Your task to perform on an android device: see sites visited before in the chrome app Image 0: 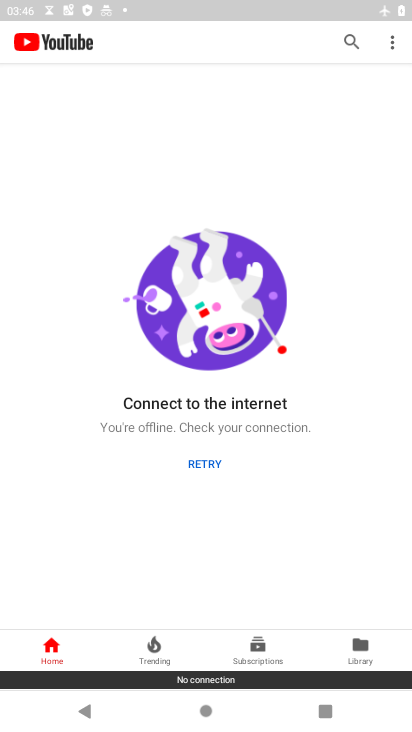
Step 0: press back button
Your task to perform on an android device: see sites visited before in the chrome app Image 1: 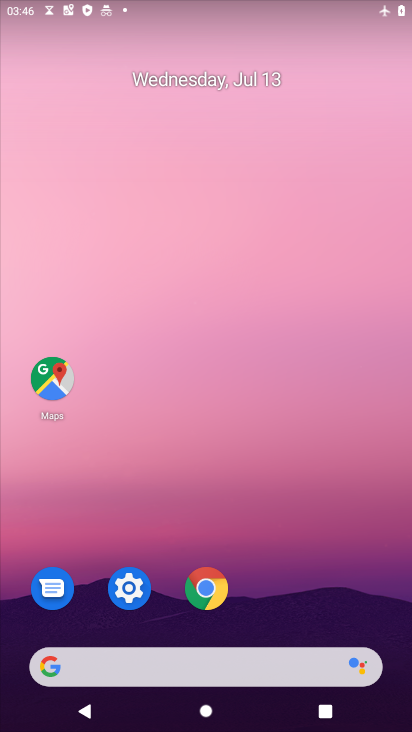
Step 1: drag from (335, 627) to (208, 5)
Your task to perform on an android device: see sites visited before in the chrome app Image 2: 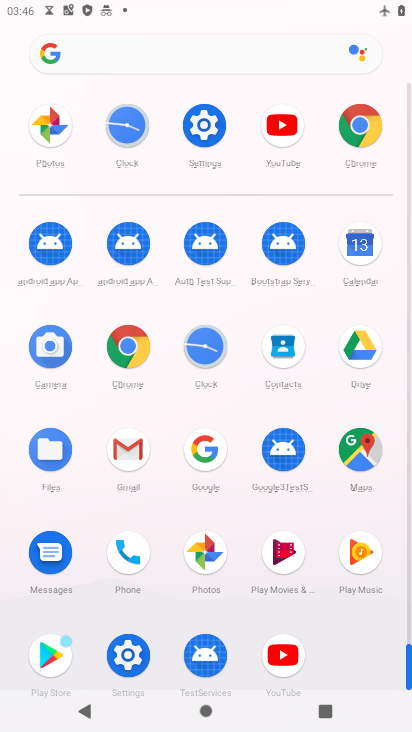
Step 2: click (363, 124)
Your task to perform on an android device: see sites visited before in the chrome app Image 3: 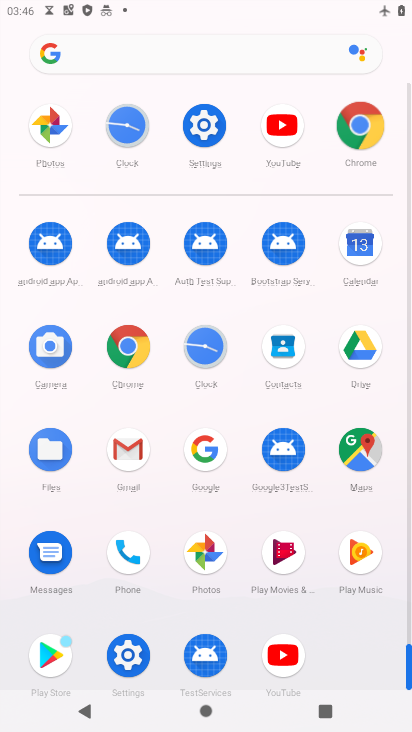
Step 3: click (371, 116)
Your task to perform on an android device: see sites visited before in the chrome app Image 4: 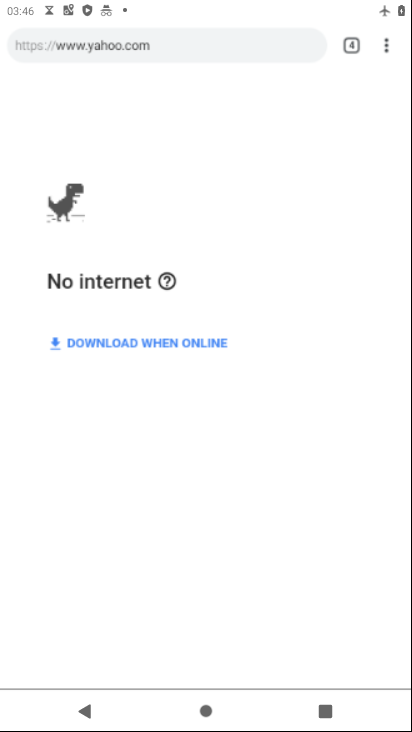
Step 4: click (371, 115)
Your task to perform on an android device: see sites visited before in the chrome app Image 5: 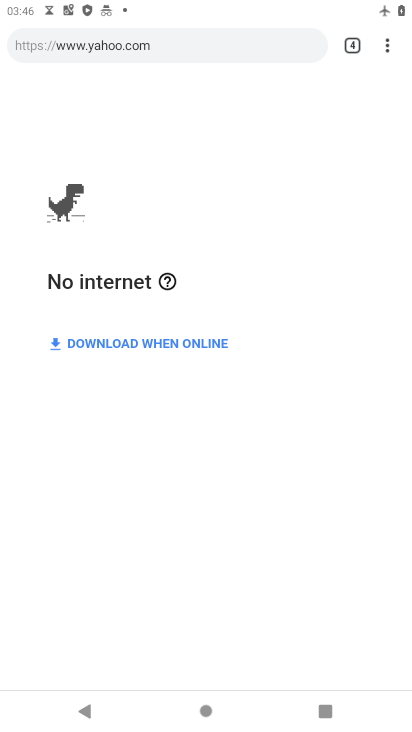
Step 5: drag from (385, 46) to (400, 316)
Your task to perform on an android device: see sites visited before in the chrome app Image 6: 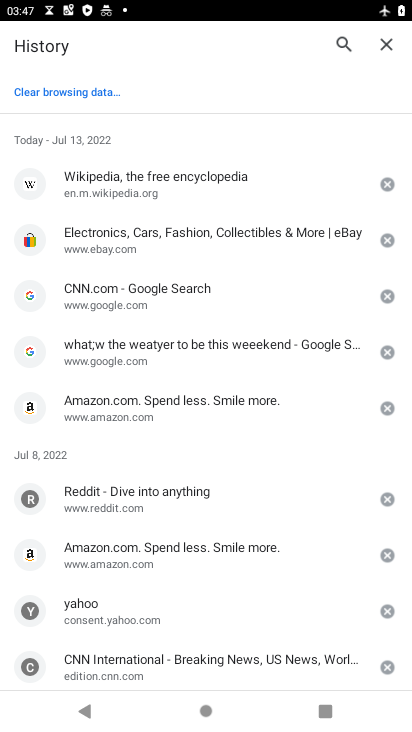
Step 6: click (380, 39)
Your task to perform on an android device: see sites visited before in the chrome app Image 7: 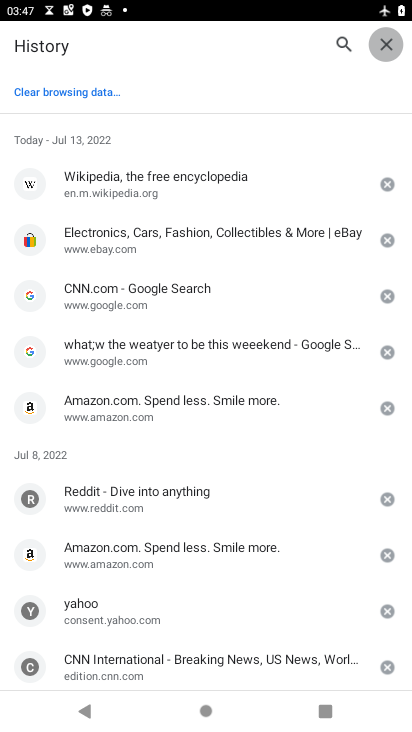
Step 7: click (380, 39)
Your task to perform on an android device: see sites visited before in the chrome app Image 8: 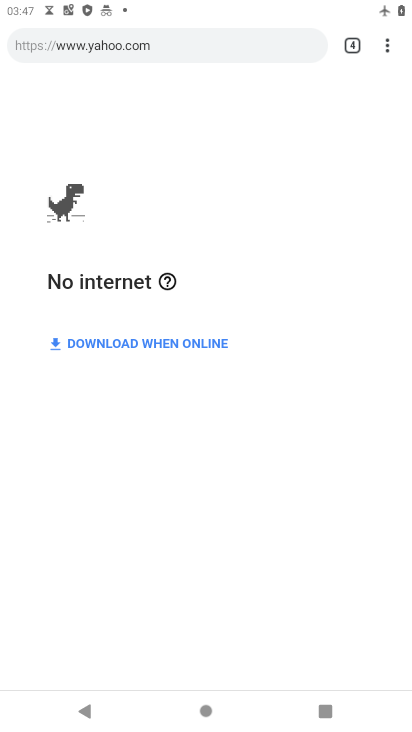
Step 8: task complete